Your task to perform on an android device: Find coffee shops on Maps Image 0: 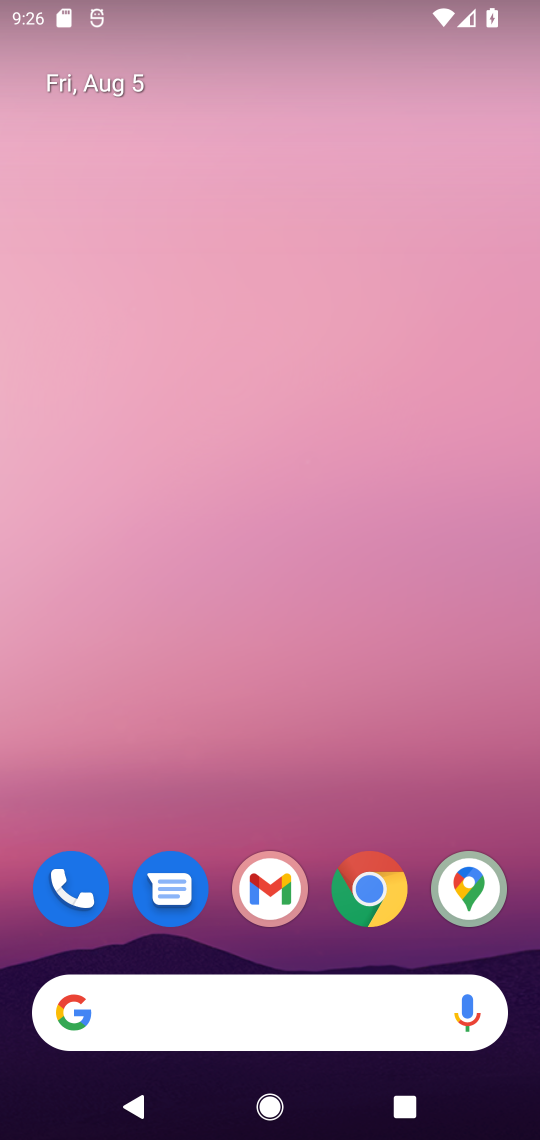
Step 0: drag from (290, 937) to (420, 290)
Your task to perform on an android device: Find coffee shops on Maps Image 1: 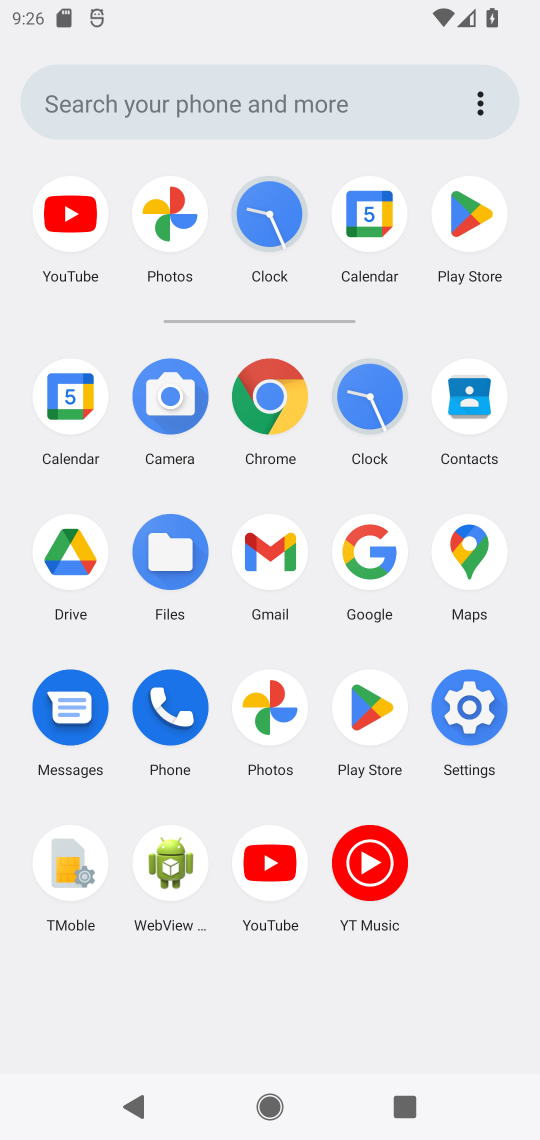
Step 1: click (478, 551)
Your task to perform on an android device: Find coffee shops on Maps Image 2: 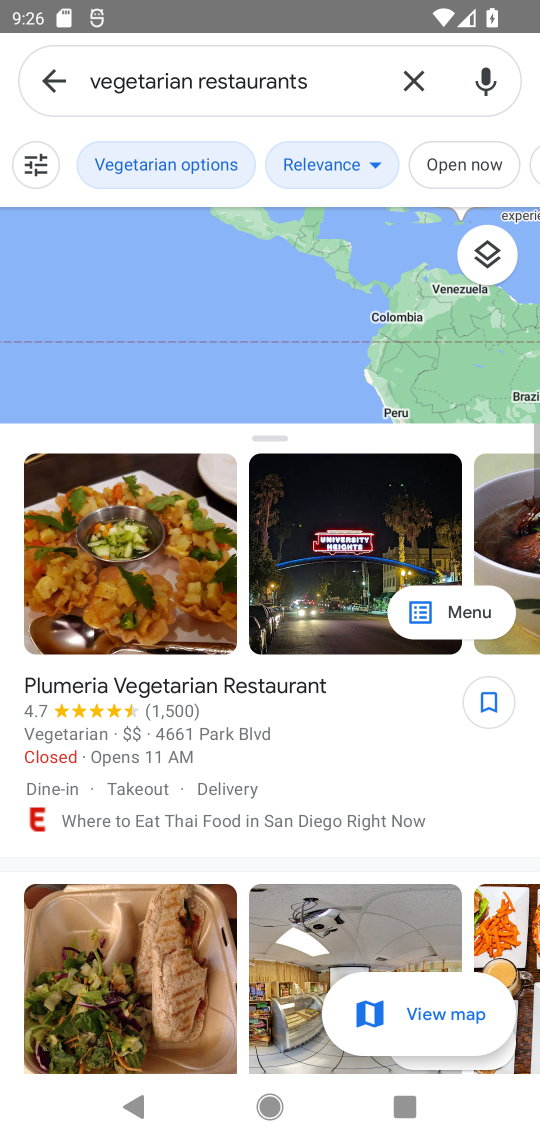
Step 2: click (403, 72)
Your task to perform on an android device: Find coffee shops on Maps Image 3: 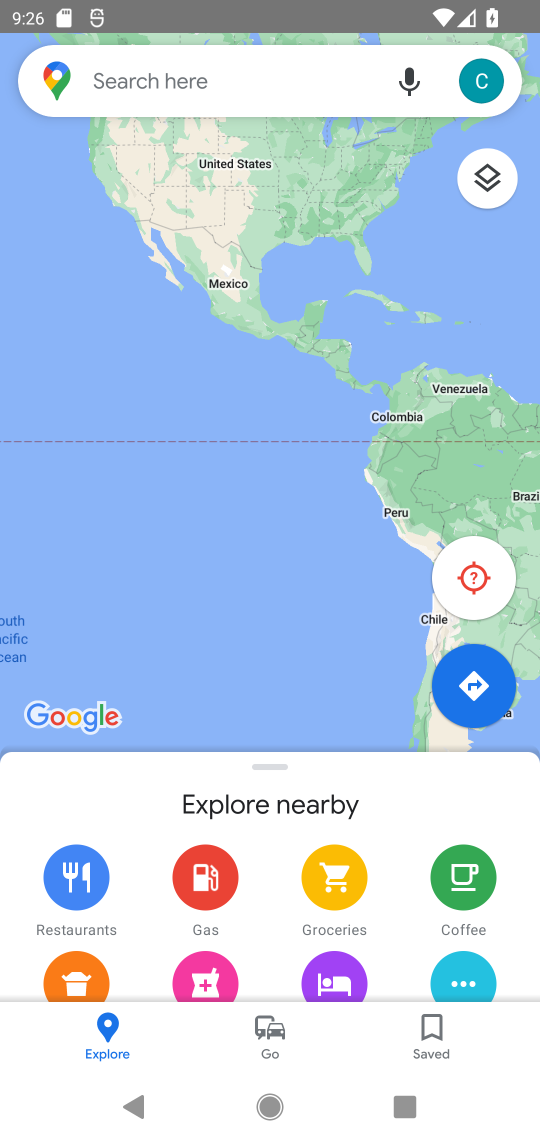
Step 3: click (186, 60)
Your task to perform on an android device: Find coffee shops on Maps Image 4: 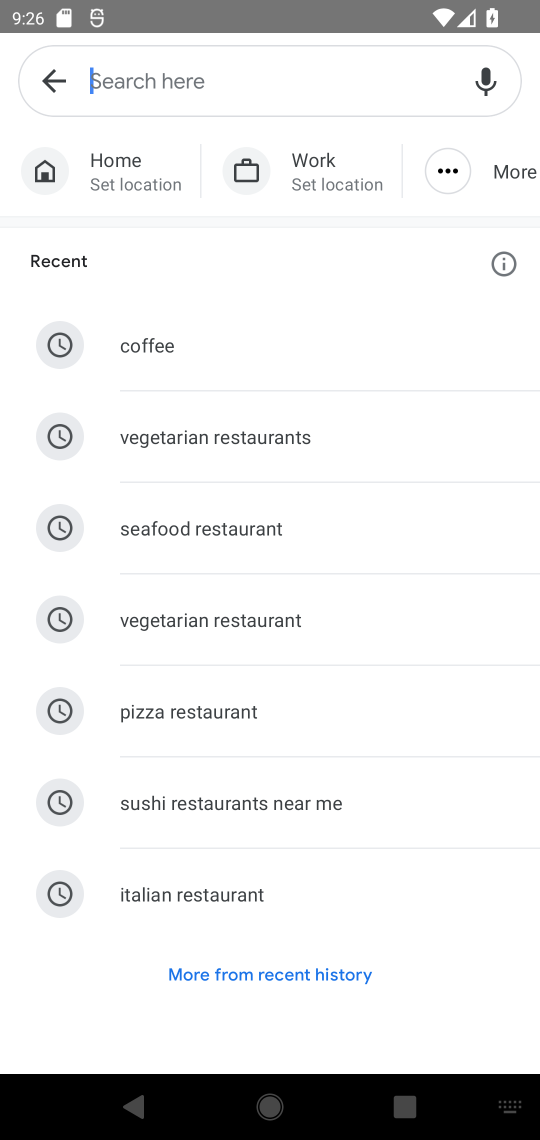
Step 4: click (186, 335)
Your task to perform on an android device: Find coffee shops on Maps Image 5: 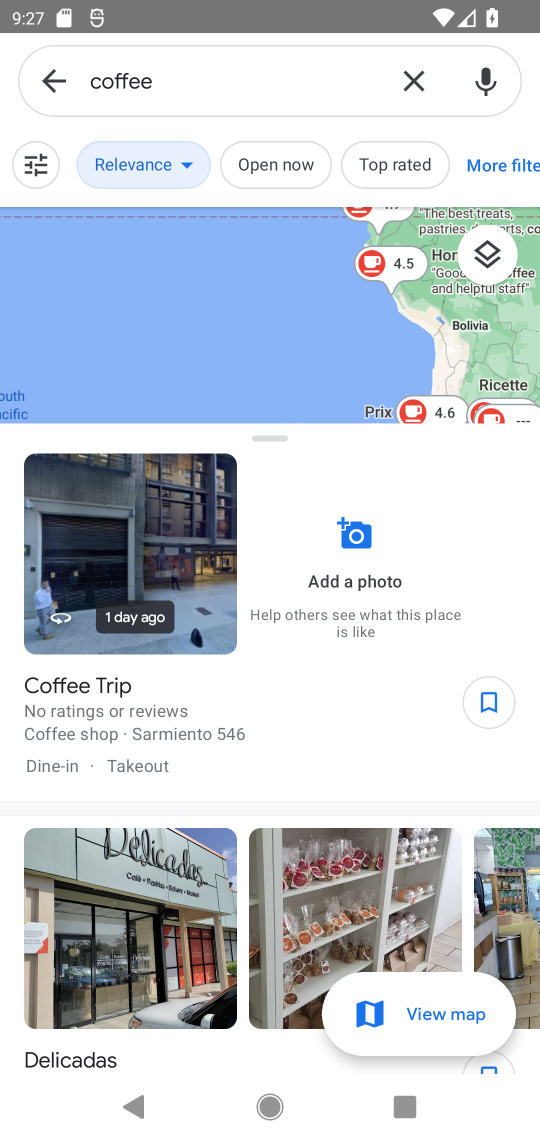
Step 5: task complete